Your task to perform on an android device: Go to network settings Image 0: 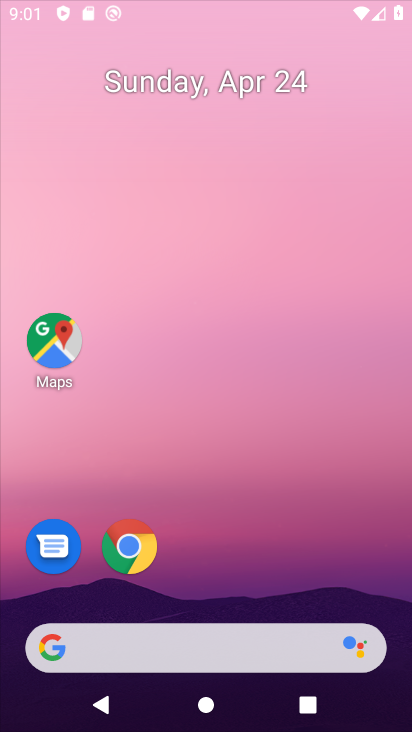
Step 0: click (286, 243)
Your task to perform on an android device: Go to network settings Image 1: 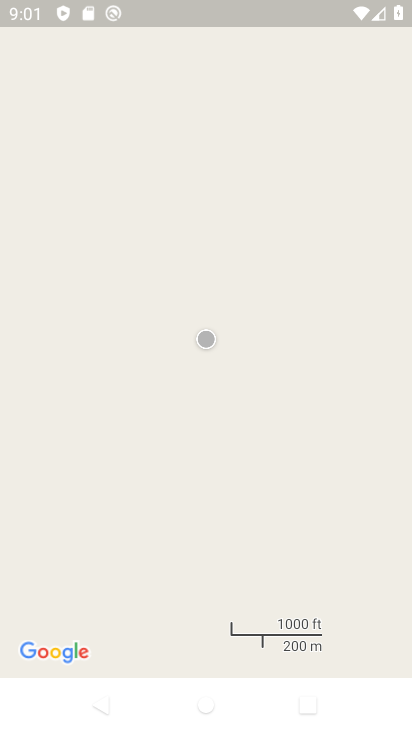
Step 1: press home button
Your task to perform on an android device: Go to network settings Image 2: 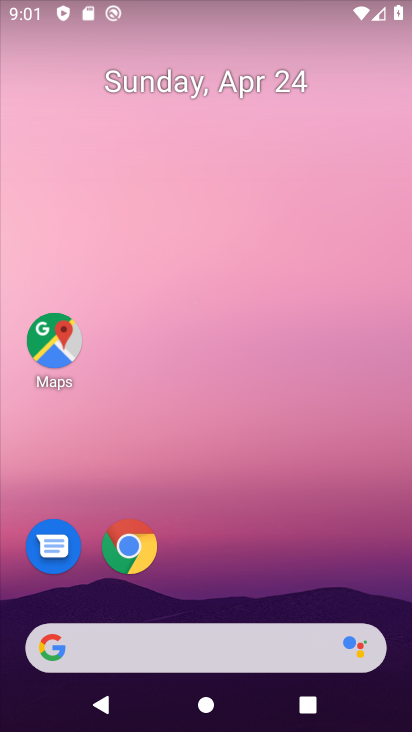
Step 2: drag from (251, 561) to (313, 180)
Your task to perform on an android device: Go to network settings Image 3: 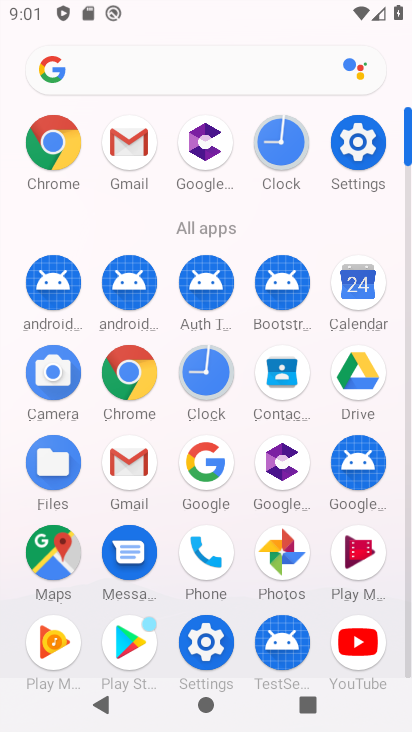
Step 3: click (362, 141)
Your task to perform on an android device: Go to network settings Image 4: 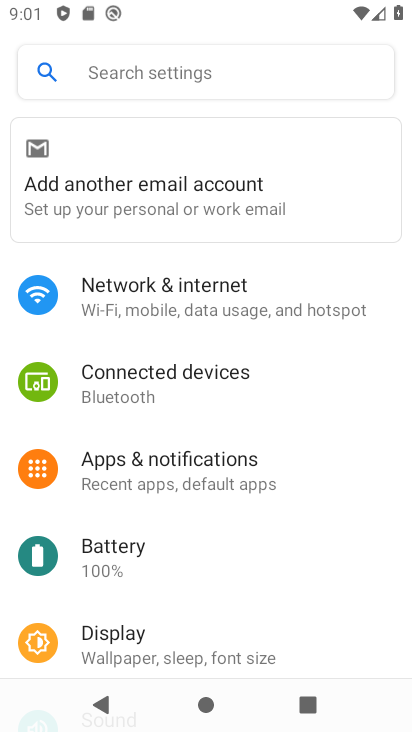
Step 4: click (239, 295)
Your task to perform on an android device: Go to network settings Image 5: 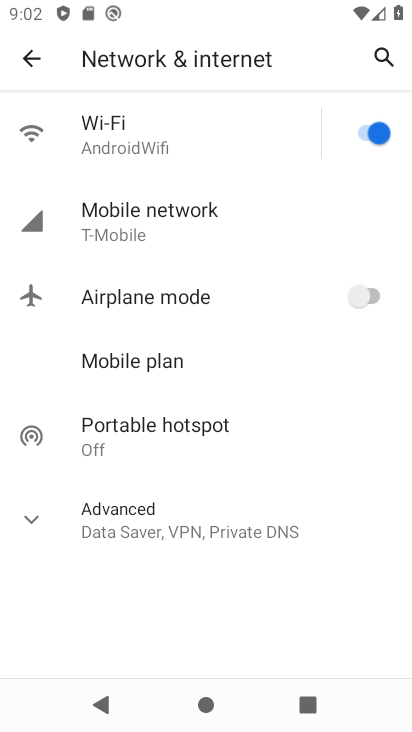
Step 5: task complete